Your task to perform on an android device: change the clock display to show seconds Image 0: 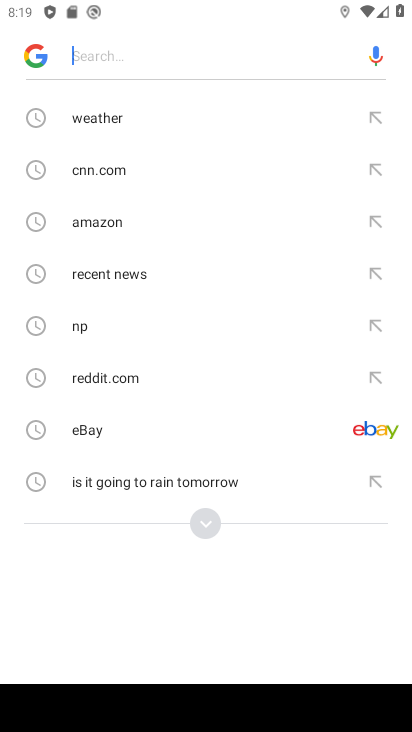
Step 0: press home button
Your task to perform on an android device: change the clock display to show seconds Image 1: 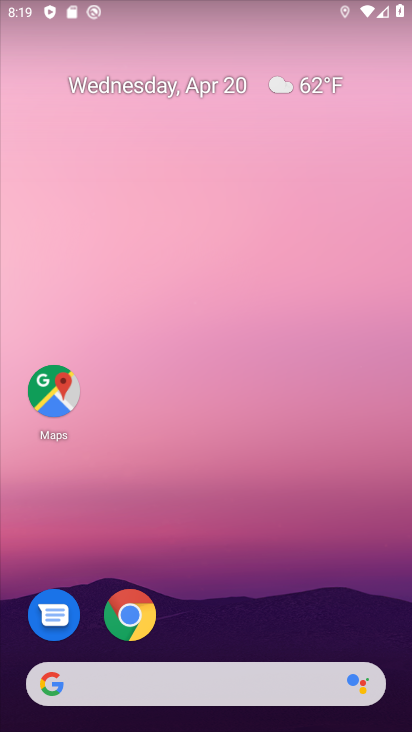
Step 1: drag from (286, 692) to (229, 211)
Your task to perform on an android device: change the clock display to show seconds Image 2: 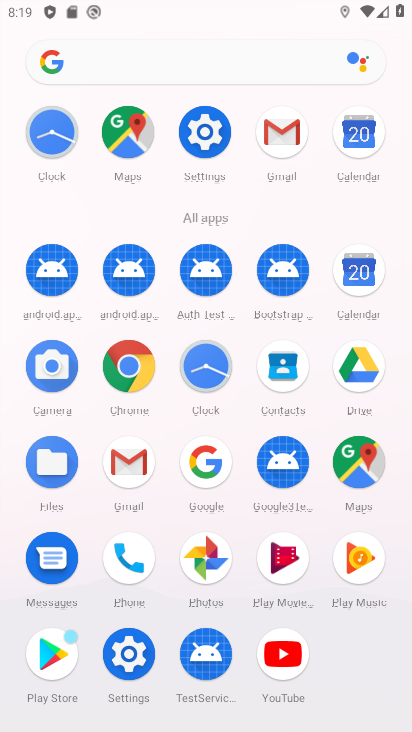
Step 2: click (200, 370)
Your task to perform on an android device: change the clock display to show seconds Image 3: 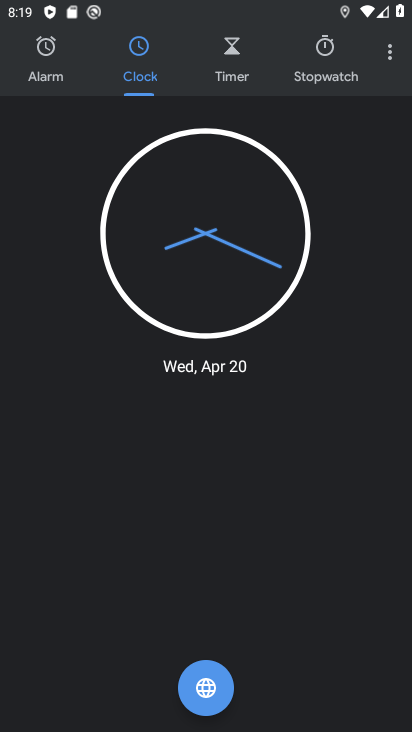
Step 3: click (391, 60)
Your task to perform on an android device: change the clock display to show seconds Image 4: 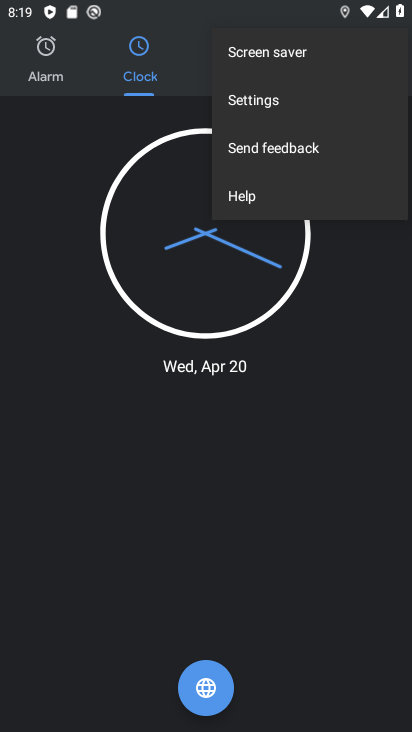
Step 4: click (335, 107)
Your task to perform on an android device: change the clock display to show seconds Image 5: 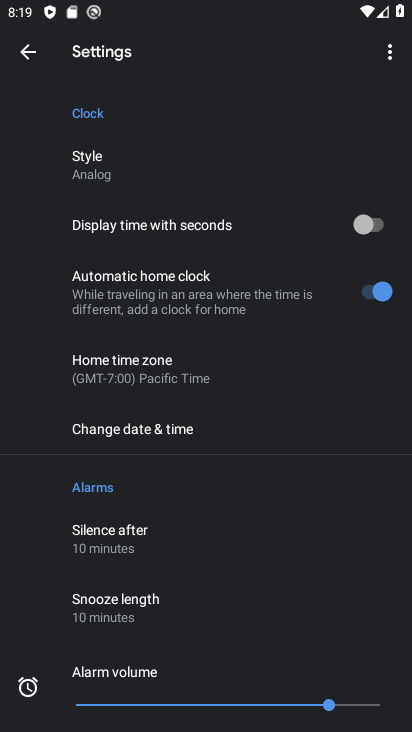
Step 5: click (365, 229)
Your task to perform on an android device: change the clock display to show seconds Image 6: 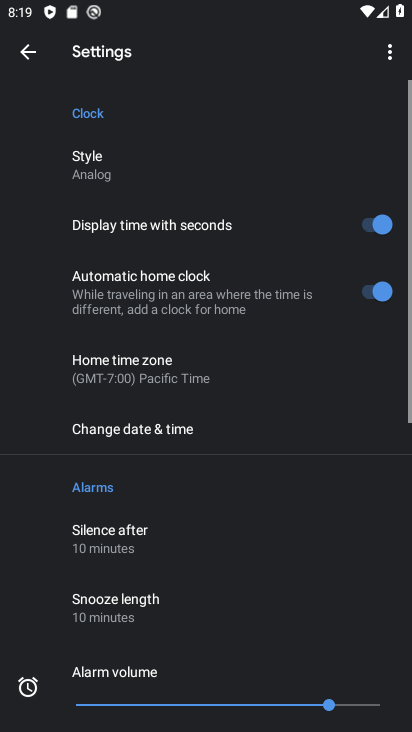
Step 6: click (34, 48)
Your task to perform on an android device: change the clock display to show seconds Image 7: 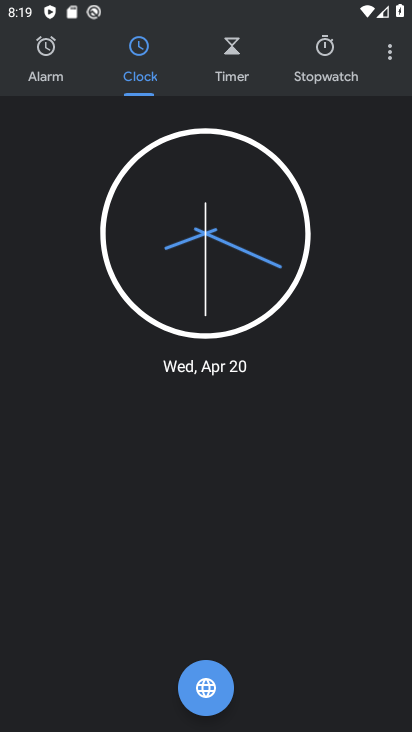
Step 7: task complete